Your task to perform on an android device: Go to Android settings Image 0: 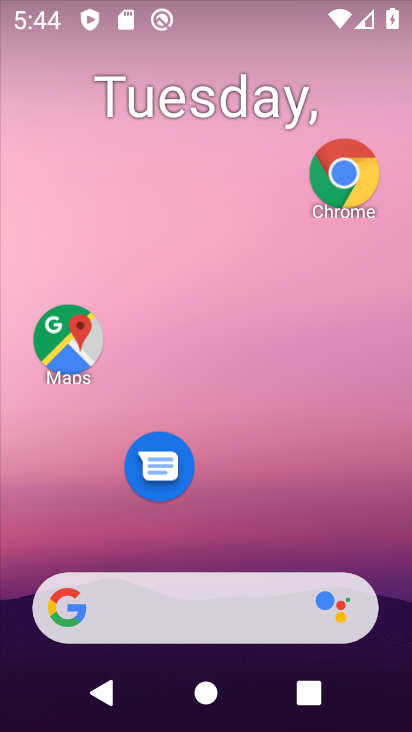
Step 0: press home button
Your task to perform on an android device: Go to Android settings Image 1: 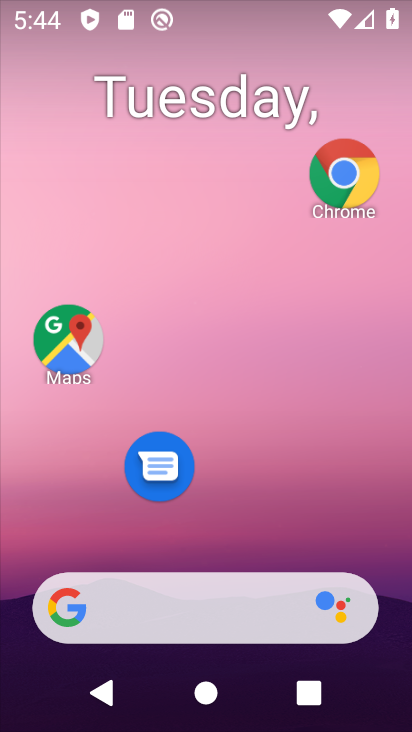
Step 1: drag from (326, 472) to (299, 95)
Your task to perform on an android device: Go to Android settings Image 2: 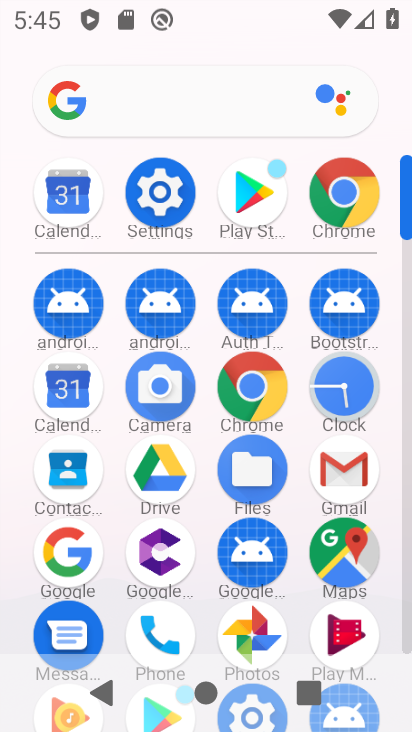
Step 2: click (146, 210)
Your task to perform on an android device: Go to Android settings Image 3: 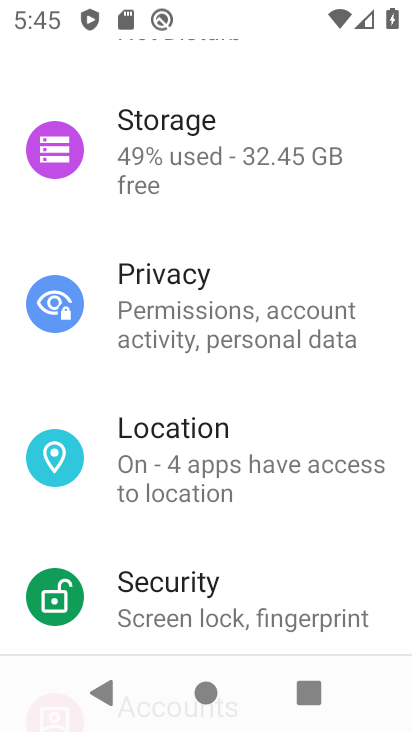
Step 3: drag from (293, 572) to (274, 24)
Your task to perform on an android device: Go to Android settings Image 4: 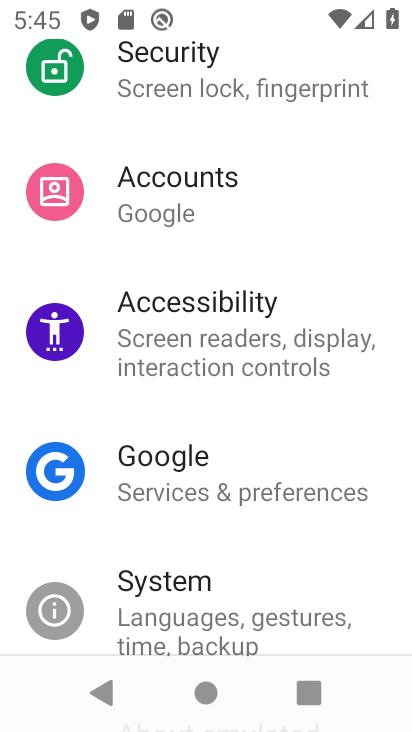
Step 4: drag from (268, 473) to (255, 130)
Your task to perform on an android device: Go to Android settings Image 5: 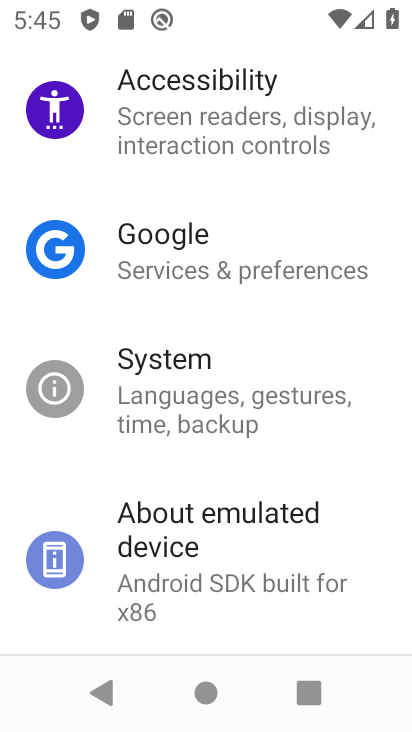
Step 5: drag from (300, 495) to (278, 176)
Your task to perform on an android device: Go to Android settings Image 6: 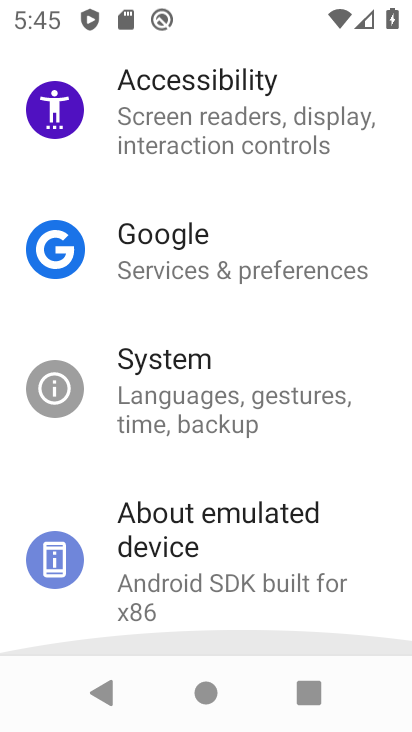
Step 6: drag from (313, 567) to (275, 201)
Your task to perform on an android device: Go to Android settings Image 7: 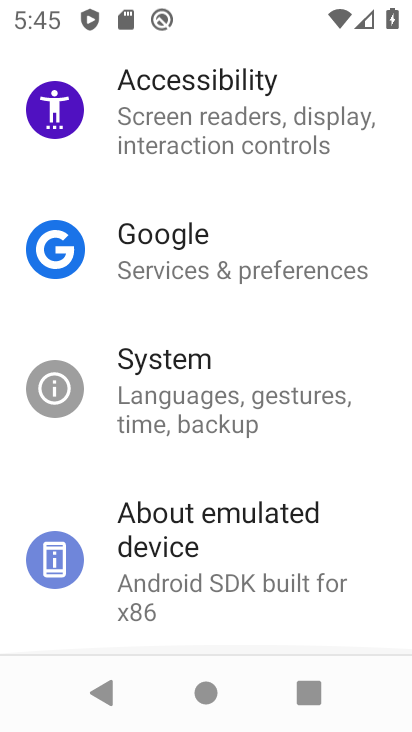
Step 7: click (274, 478)
Your task to perform on an android device: Go to Android settings Image 8: 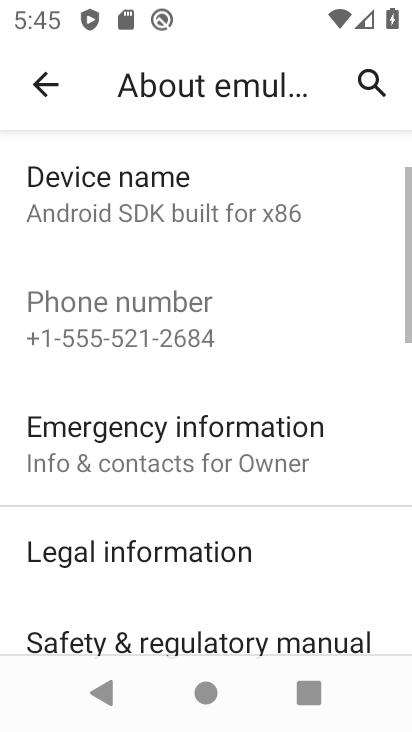
Step 8: drag from (273, 468) to (211, 188)
Your task to perform on an android device: Go to Android settings Image 9: 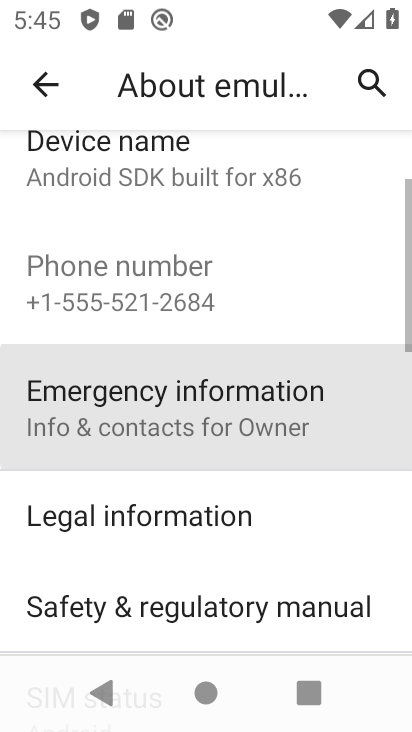
Step 9: drag from (283, 586) to (267, 273)
Your task to perform on an android device: Go to Android settings Image 10: 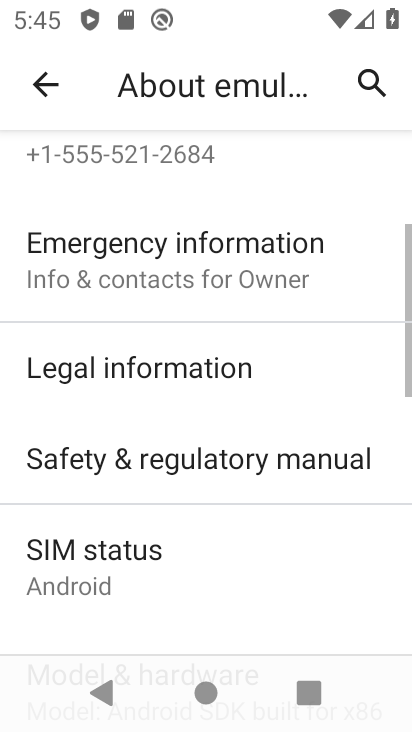
Step 10: drag from (285, 514) to (277, 286)
Your task to perform on an android device: Go to Android settings Image 11: 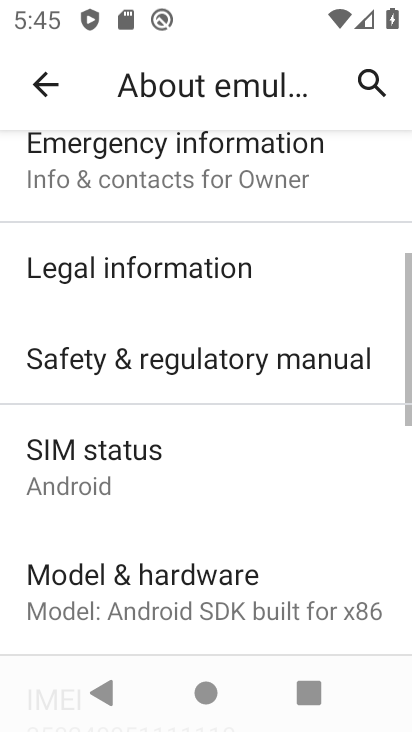
Step 11: drag from (306, 495) to (277, 257)
Your task to perform on an android device: Go to Android settings Image 12: 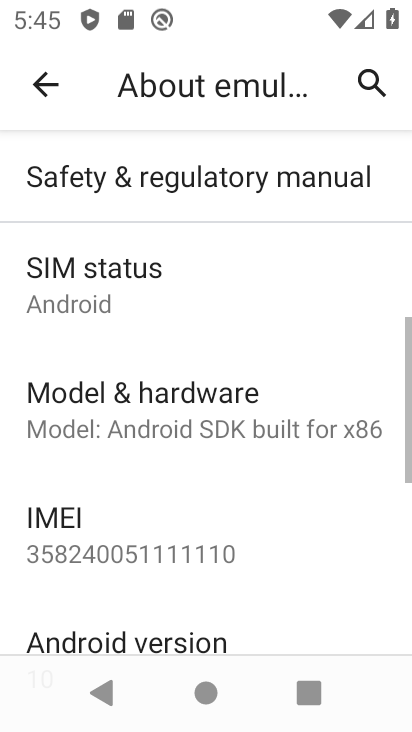
Step 12: drag from (298, 413) to (292, 190)
Your task to perform on an android device: Go to Android settings Image 13: 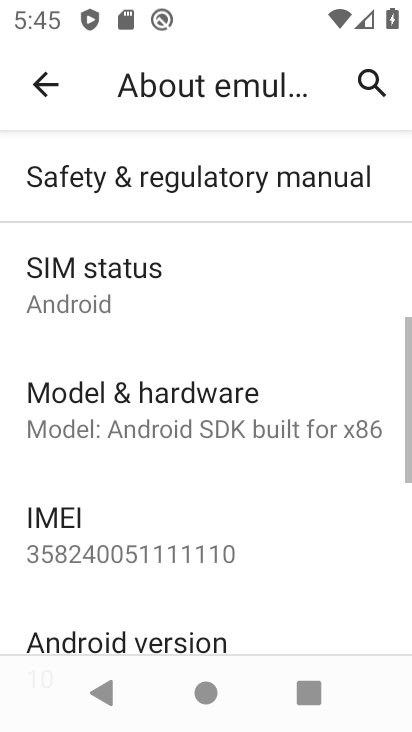
Step 13: click (257, 625)
Your task to perform on an android device: Go to Android settings Image 14: 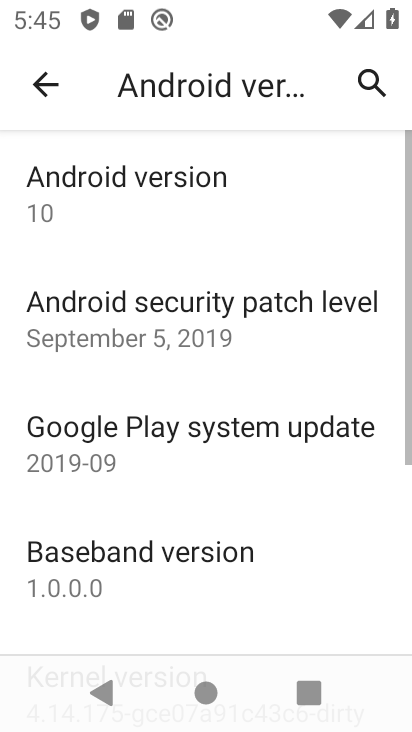
Step 14: task complete